Your task to perform on an android device: star an email in the gmail app Image 0: 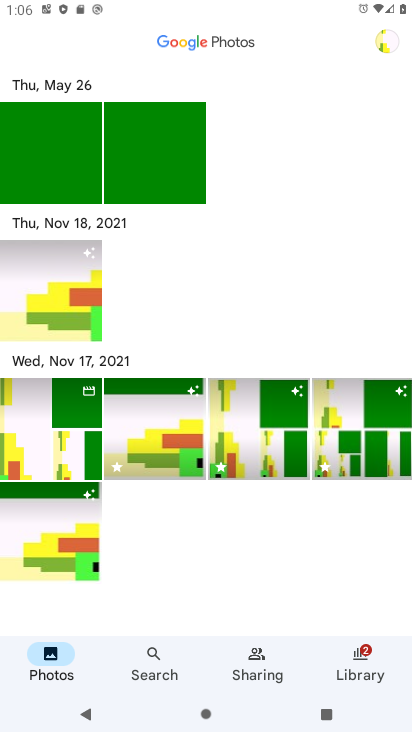
Step 0: press home button
Your task to perform on an android device: star an email in the gmail app Image 1: 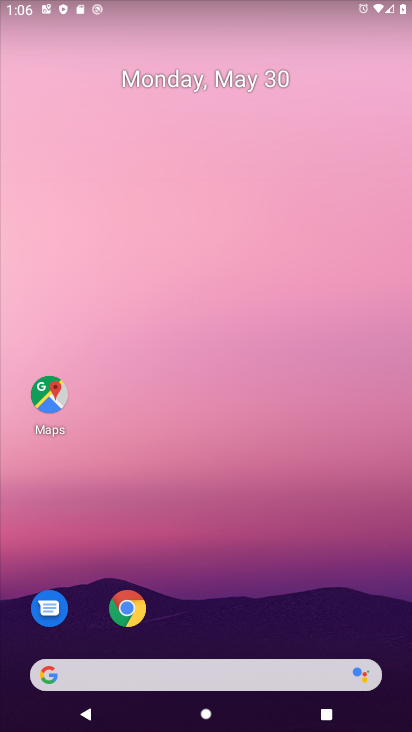
Step 1: drag from (259, 493) to (253, 224)
Your task to perform on an android device: star an email in the gmail app Image 2: 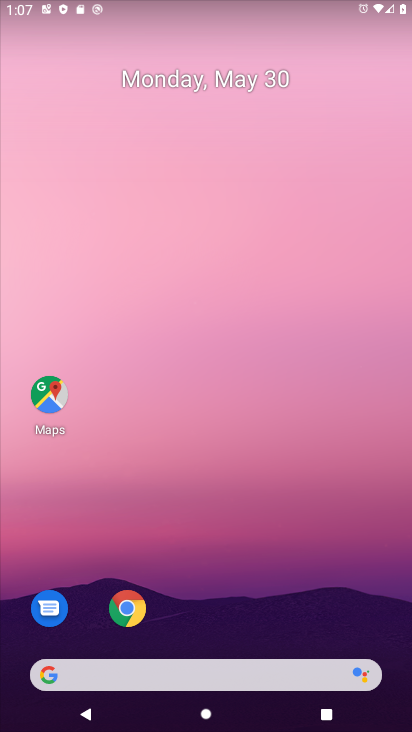
Step 2: drag from (242, 670) to (322, 247)
Your task to perform on an android device: star an email in the gmail app Image 3: 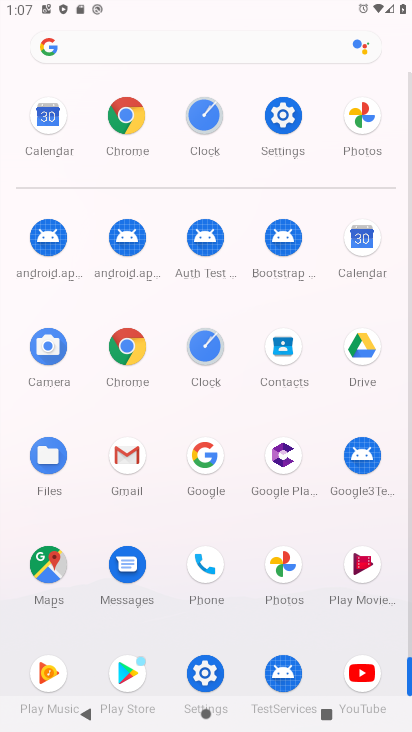
Step 3: click (130, 471)
Your task to perform on an android device: star an email in the gmail app Image 4: 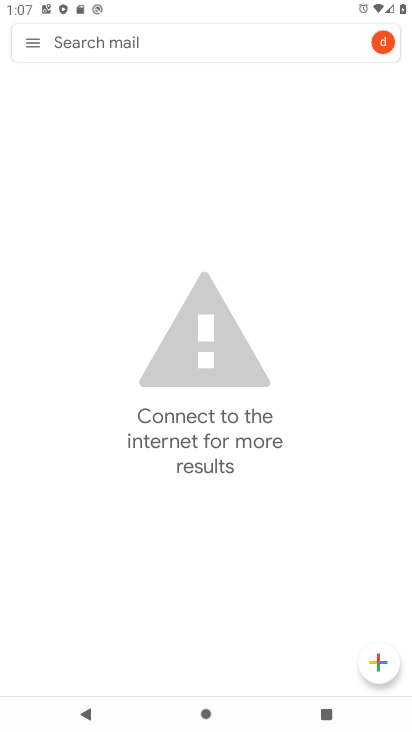
Step 4: click (35, 43)
Your task to perform on an android device: star an email in the gmail app Image 5: 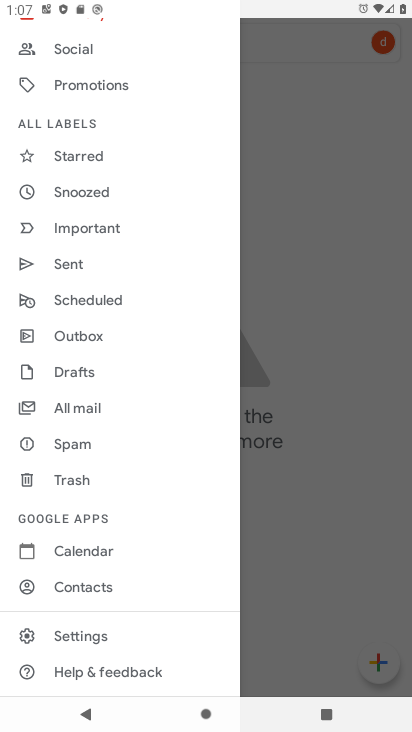
Step 5: click (108, 146)
Your task to perform on an android device: star an email in the gmail app Image 6: 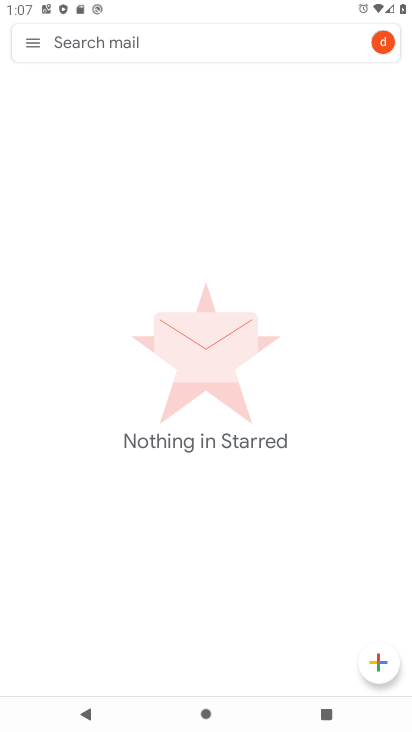
Step 6: task complete